Your task to perform on an android device: Open CNN.com Image 0: 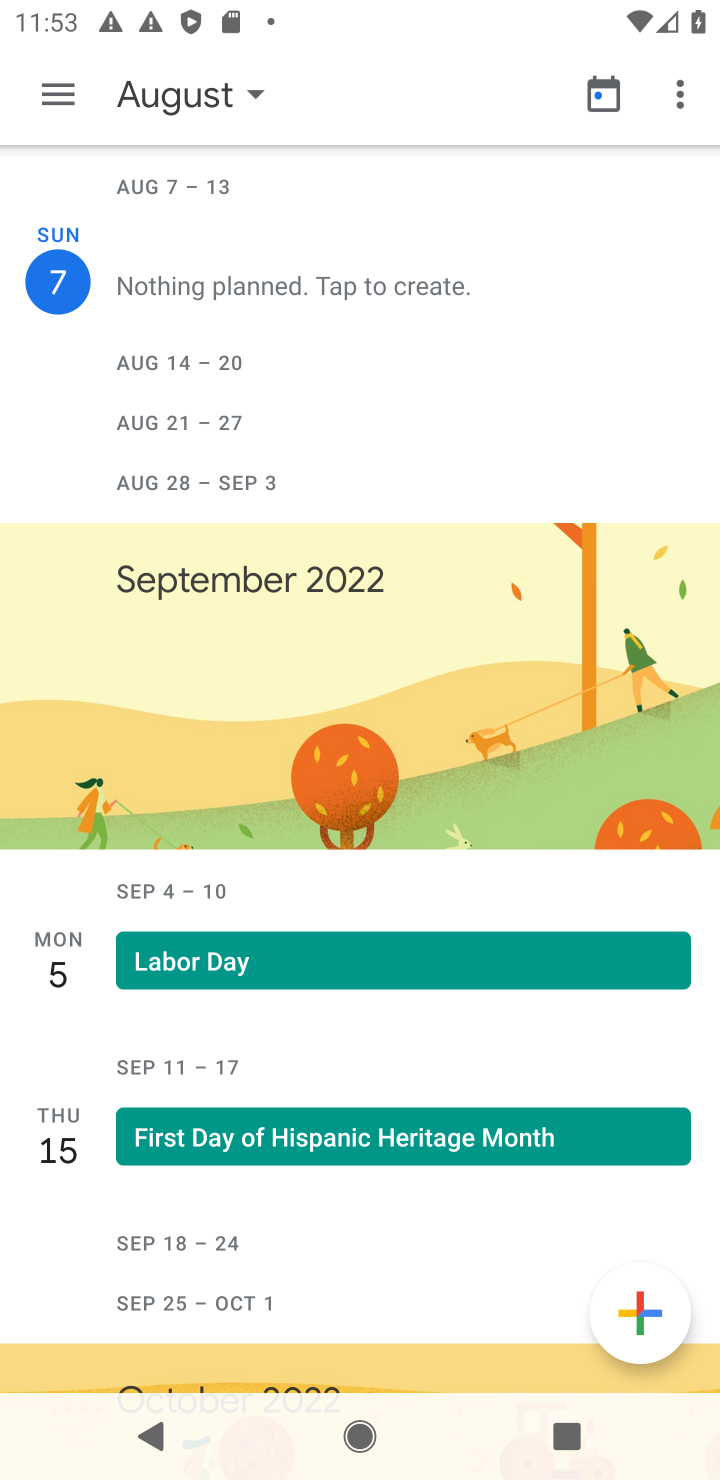
Step 0: press home button
Your task to perform on an android device: Open CNN.com Image 1: 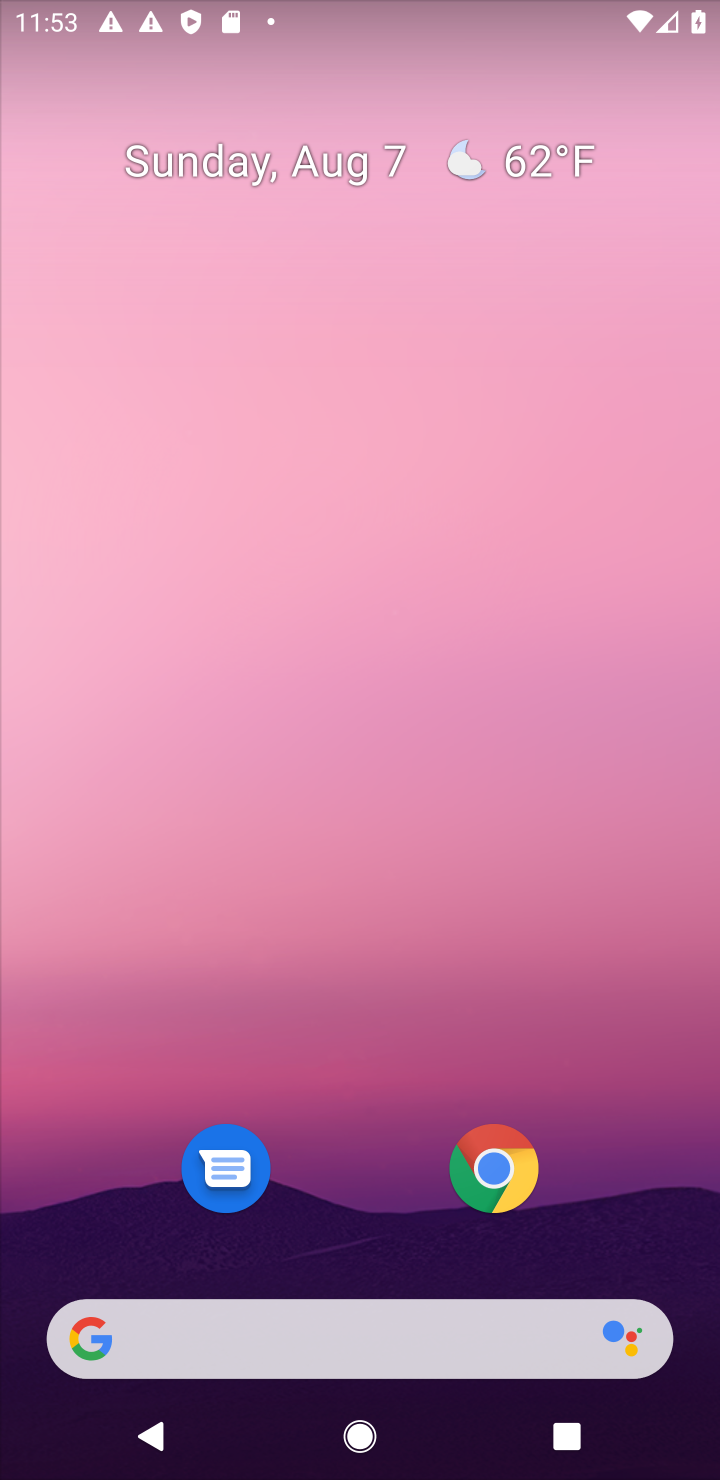
Step 1: click (497, 1180)
Your task to perform on an android device: Open CNN.com Image 2: 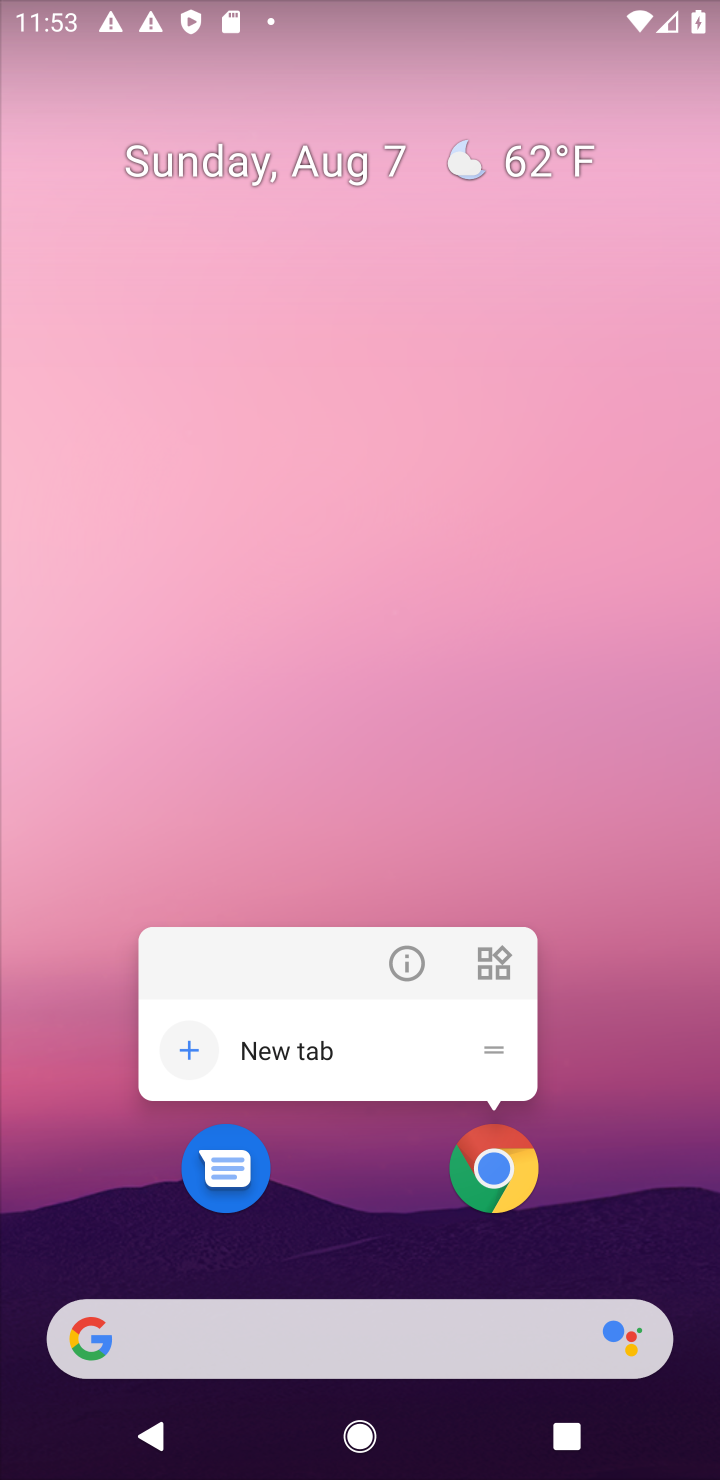
Step 2: click (300, 486)
Your task to perform on an android device: Open CNN.com Image 3: 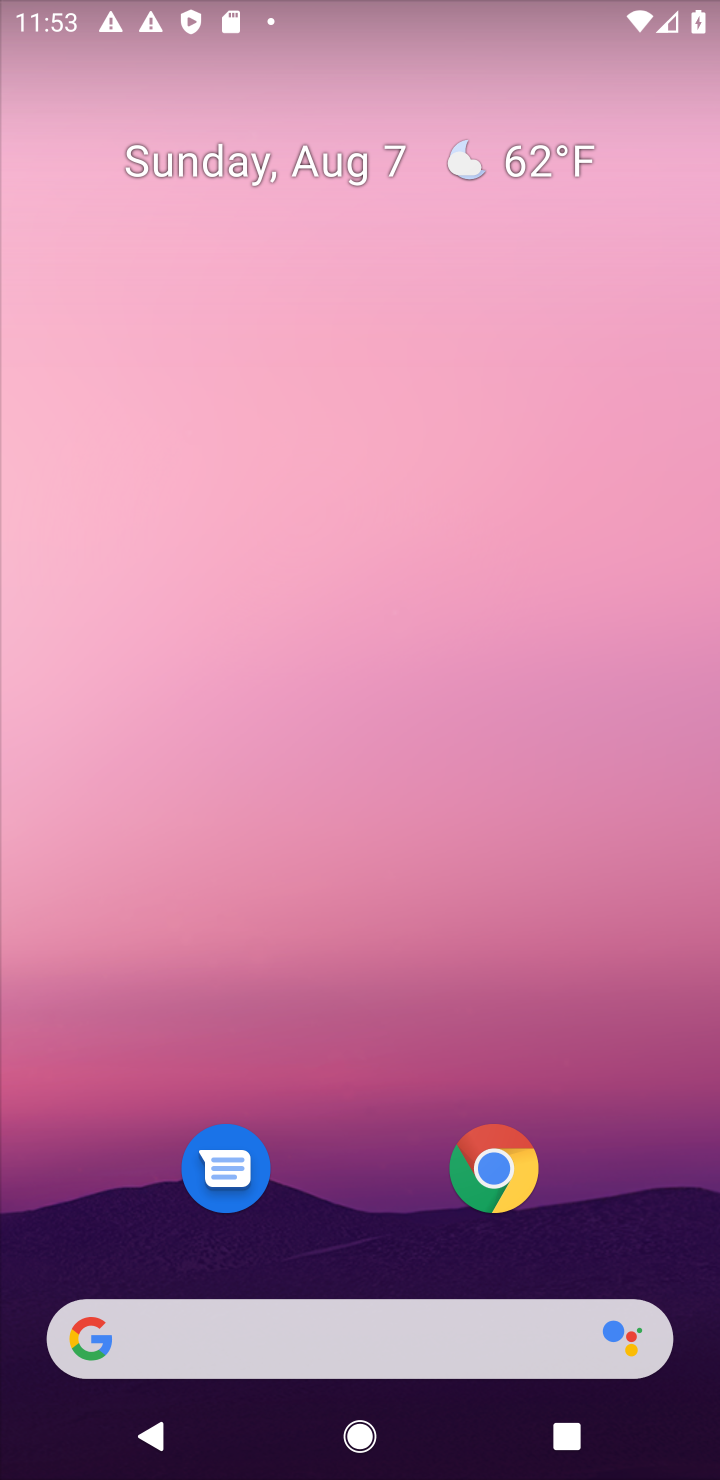
Step 3: click (486, 1204)
Your task to perform on an android device: Open CNN.com Image 4: 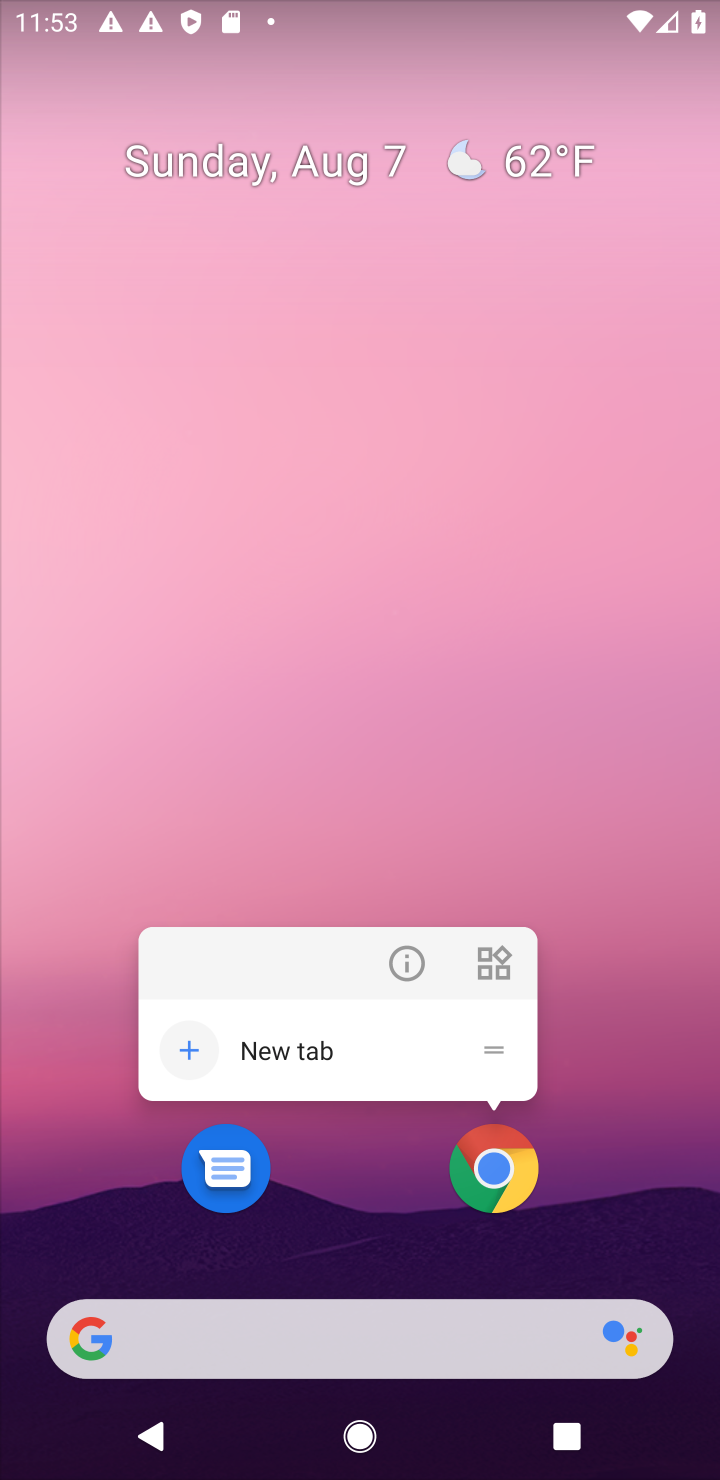
Step 4: click (386, 1315)
Your task to perform on an android device: Open CNN.com Image 5: 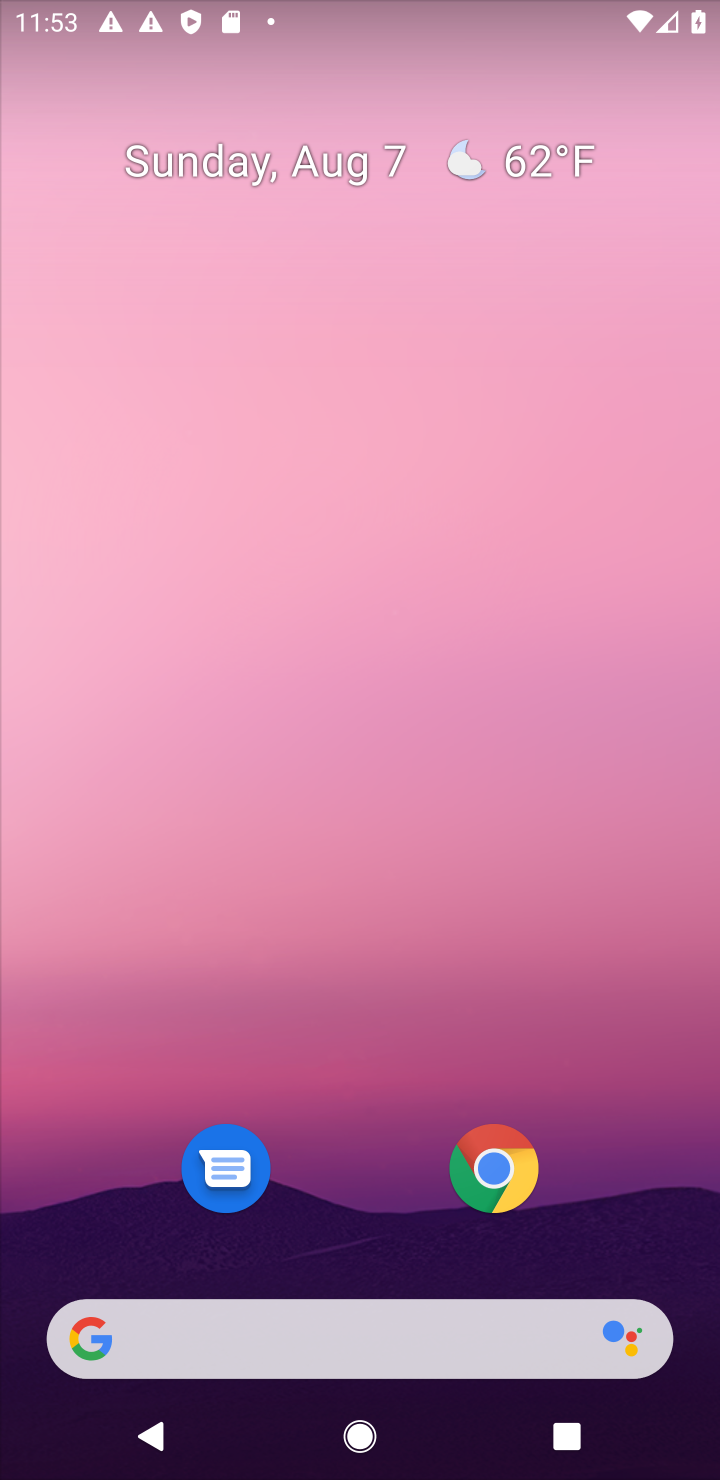
Step 5: click (386, 1315)
Your task to perform on an android device: Open CNN.com Image 6: 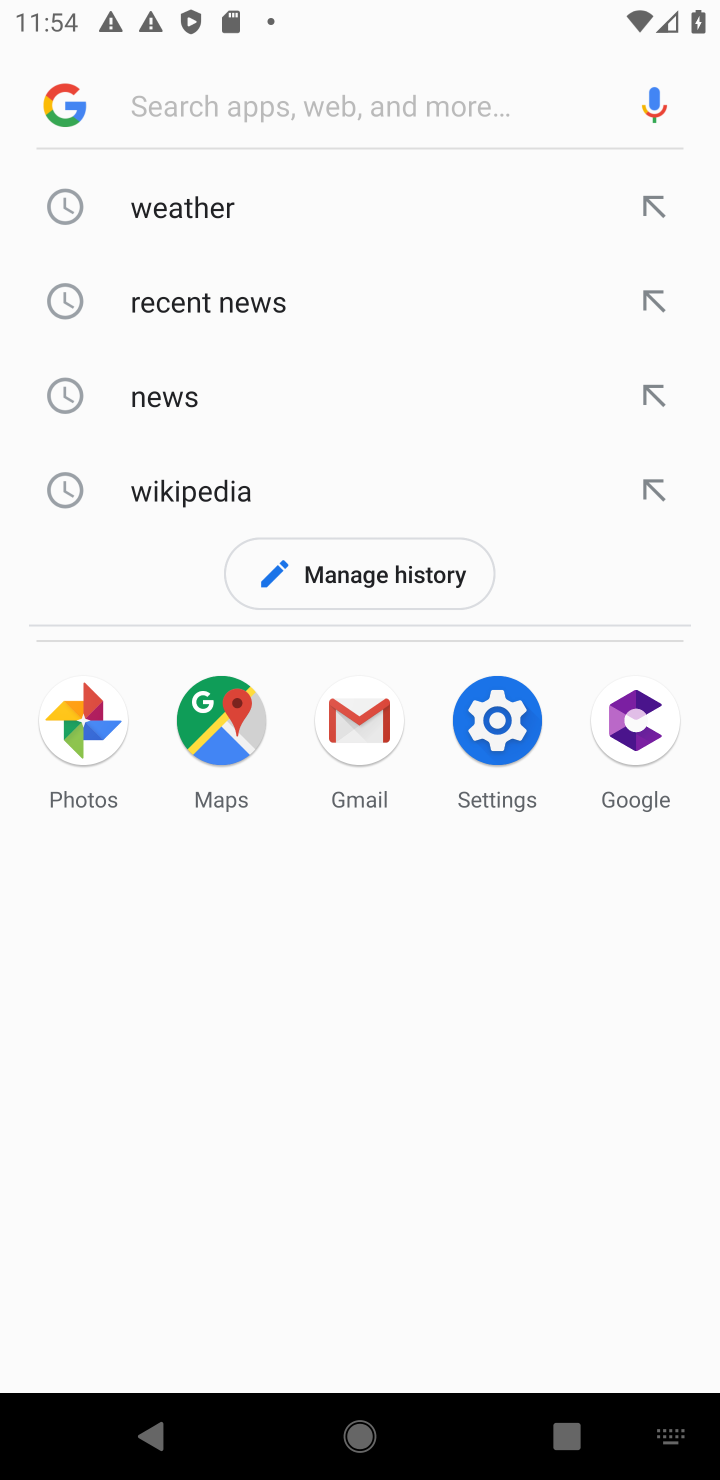
Step 6: type "cnn.com"
Your task to perform on an android device: Open CNN.com Image 7: 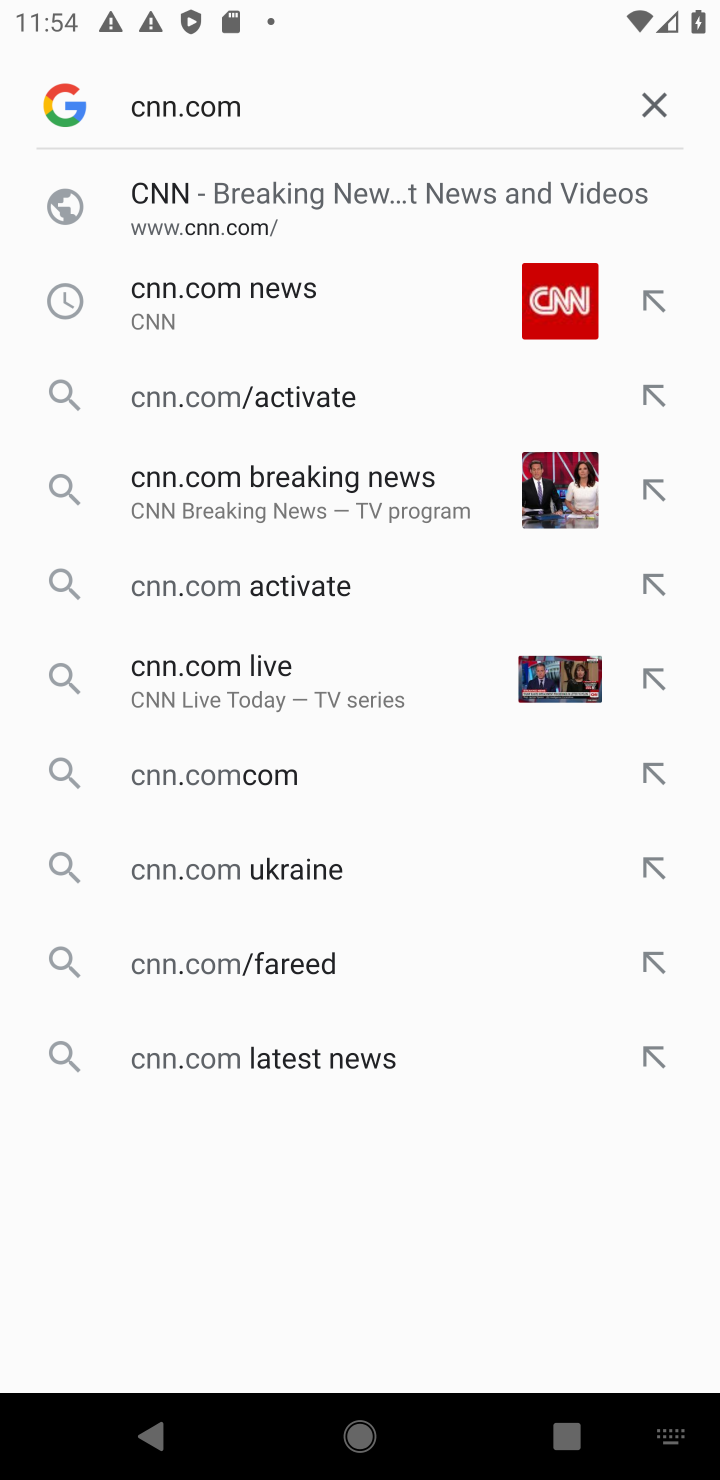
Step 7: click (225, 287)
Your task to perform on an android device: Open CNN.com Image 8: 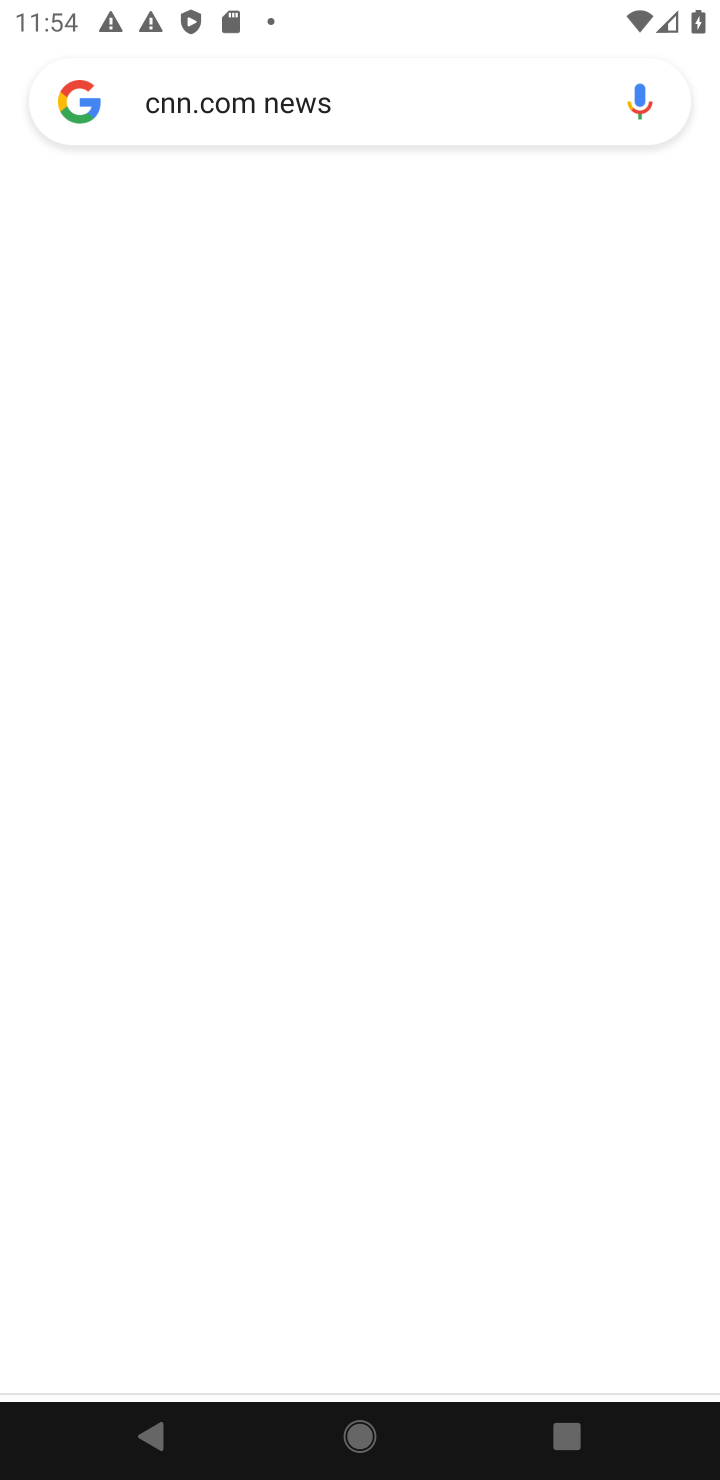
Step 8: task complete